Your task to perform on an android device: toggle improve location accuracy Image 0: 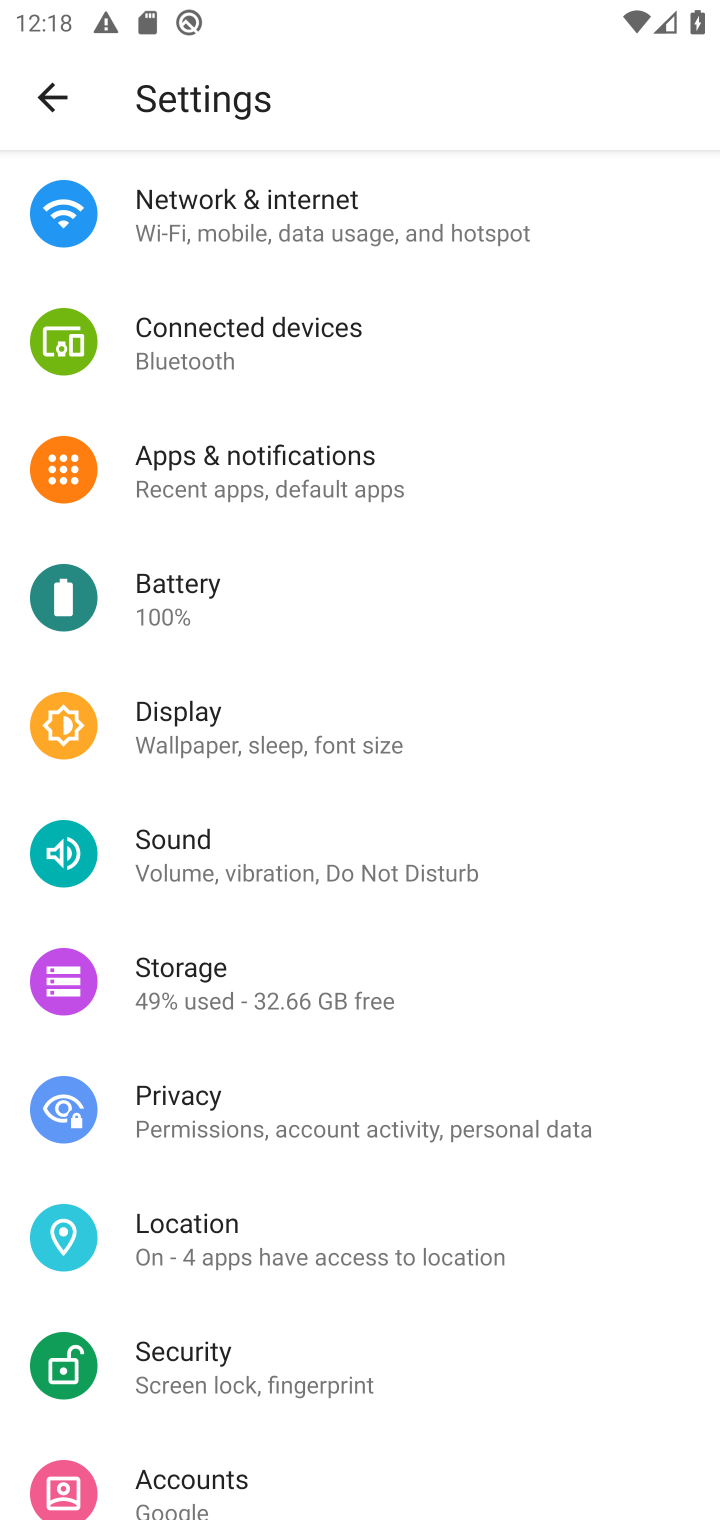
Step 0: click (209, 1258)
Your task to perform on an android device: toggle improve location accuracy Image 1: 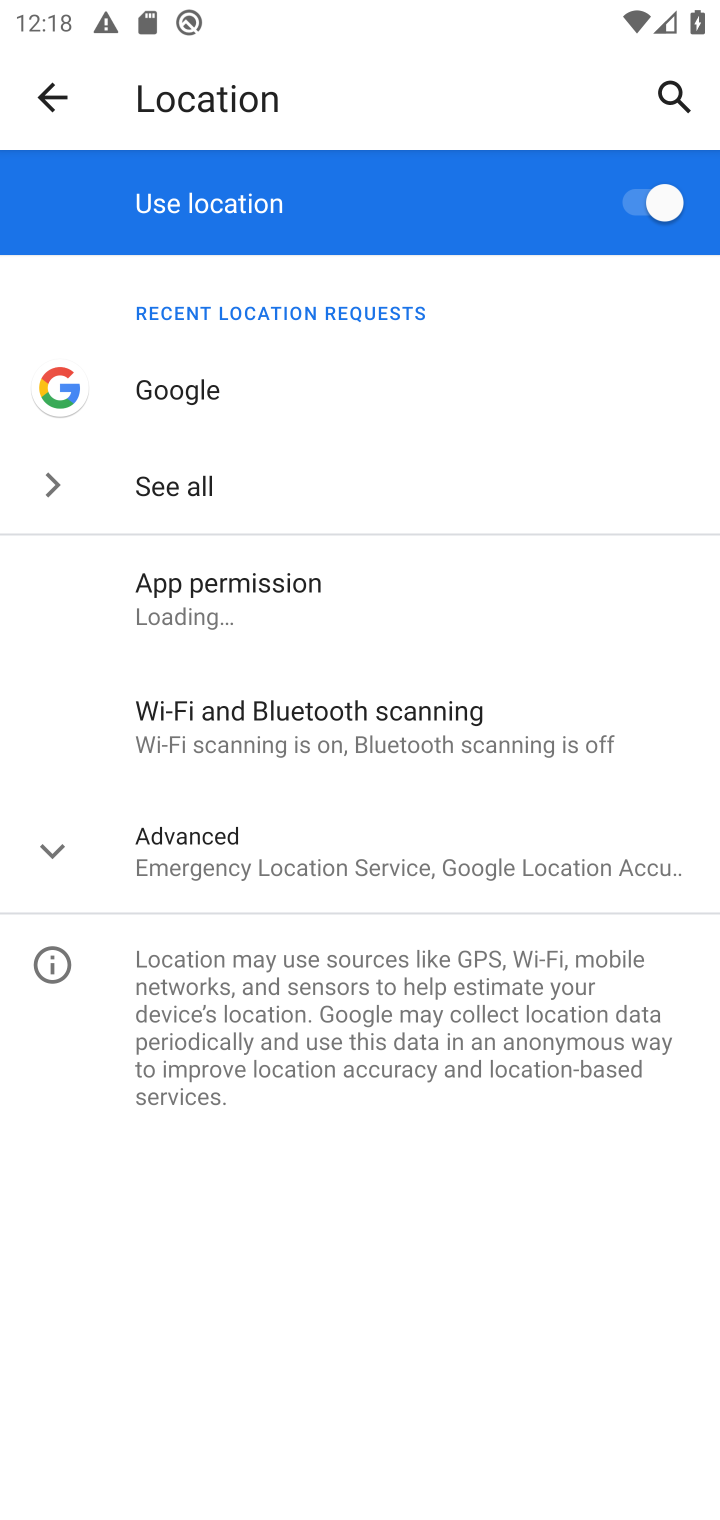
Step 1: click (262, 881)
Your task to perform on an android device: toggle improve location accuracy Image 2: 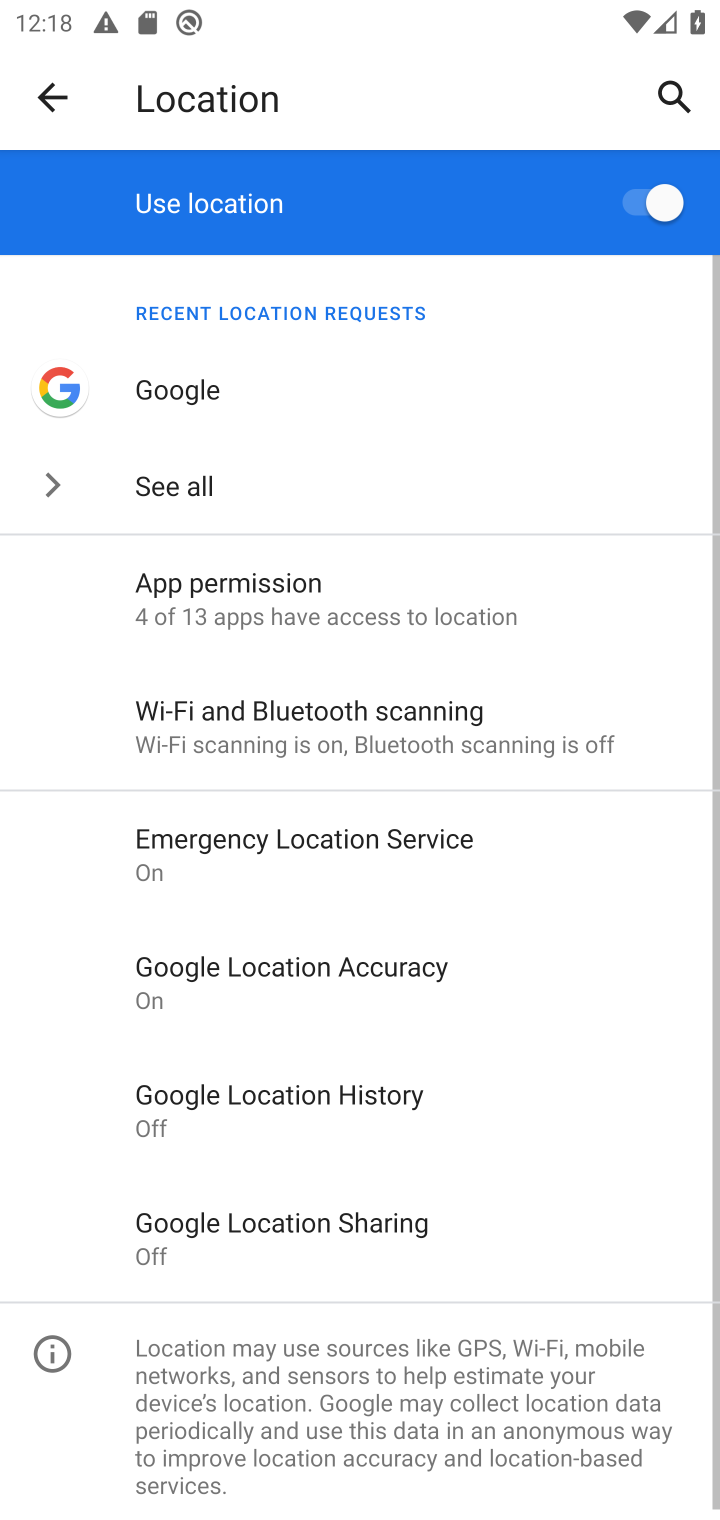
Step 2: click (333, 976)
Your task to perform on an android device: toggle improve location accuracy Image 3: 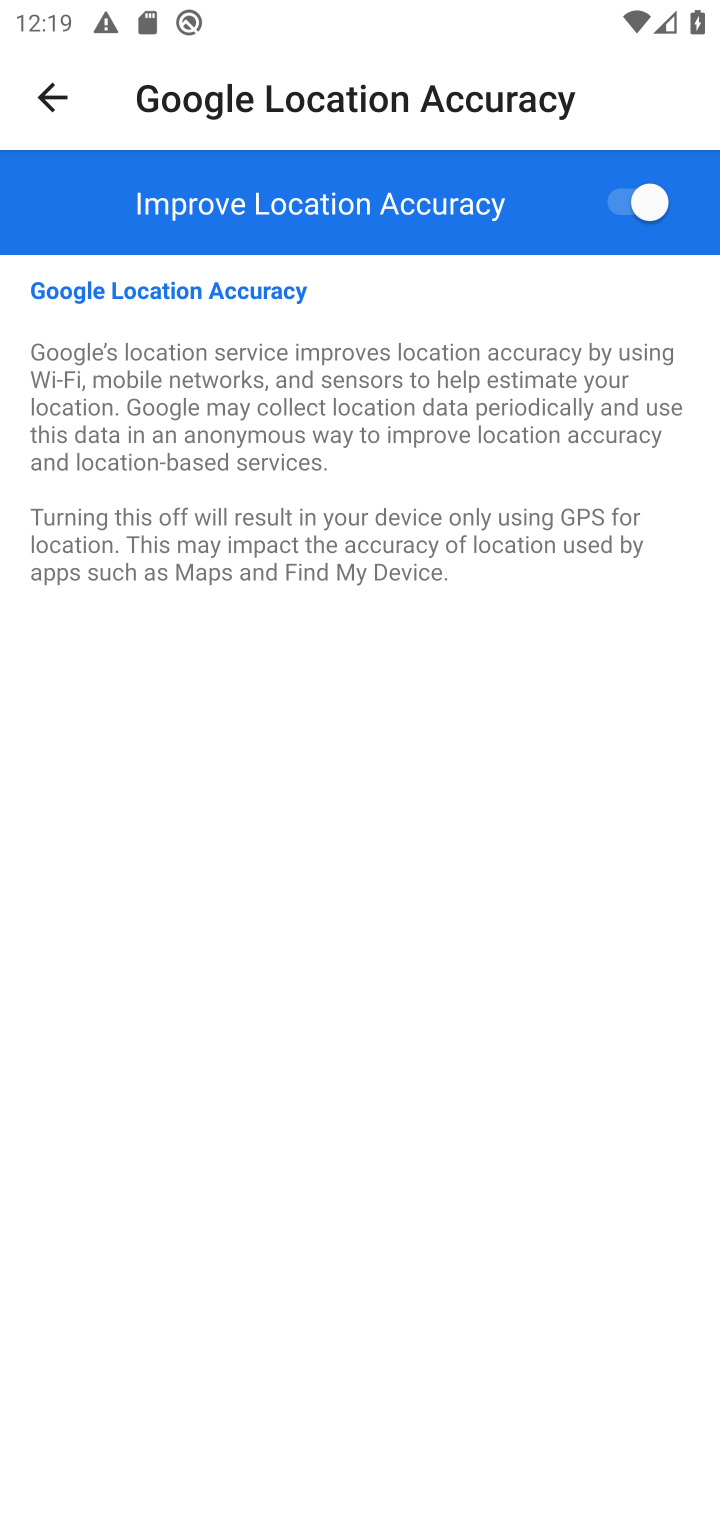
Step 3: click (599, 212)
Your task to perform on an android device: toggle improve location accuracy Image 4: 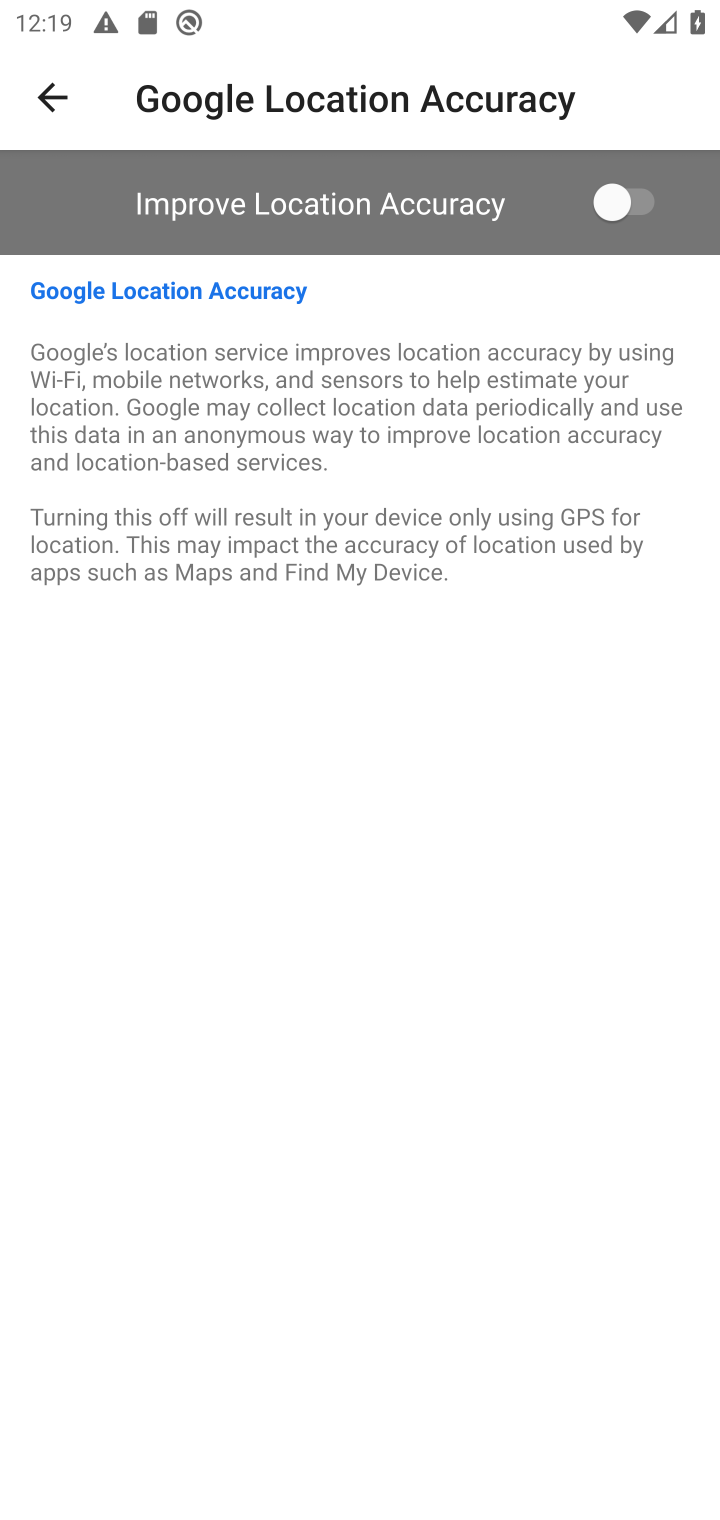
Step 4: task complete